Your task to perform on an android device: Play the last video I watched on Youtube Image 0: 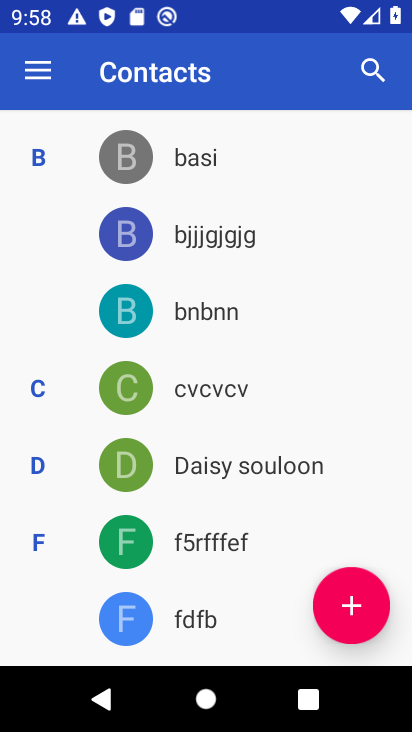
Step 0: press home button
Your task to perform on an android device: Play the last video I watched on Youtube Image 1: 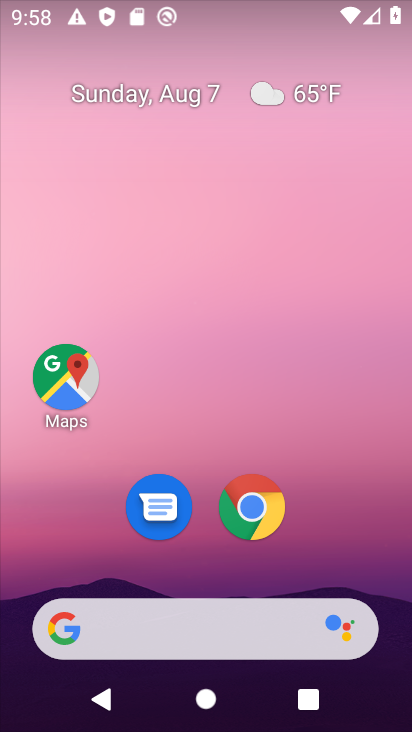
Step 1: click (274, 527)
Your task to perform on an android device: Play the last video I watched on Youtube Image 2: 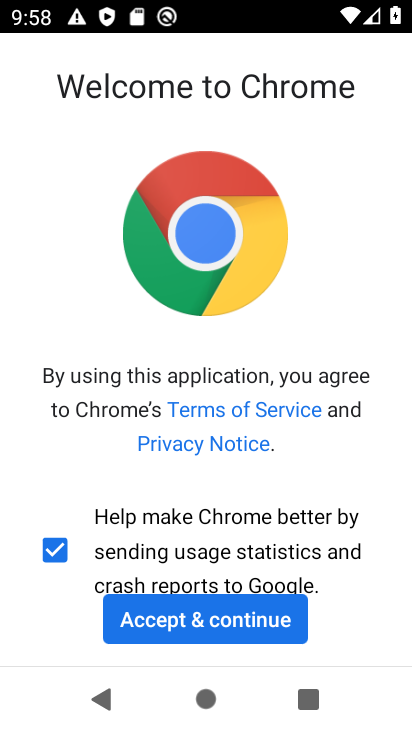
Step 2: click (193, 626)
Your task to perform on an android device: Play the last video I watched on Youtube Image 3: 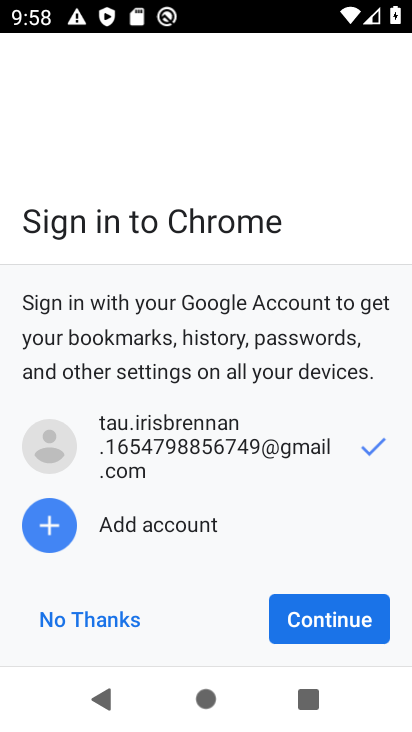
Step 3: click (366, 622)
Your task to perform on an android device: Play the last video I watched on Youtube Image 4: 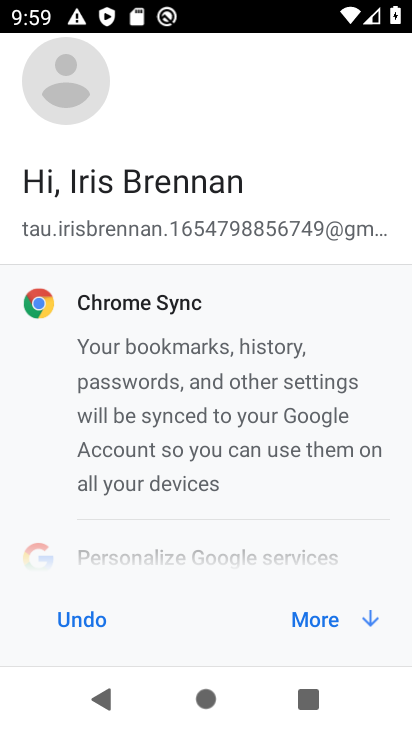
Step 4: click (340, 627)
Your task to perform on an android device: Play the last video I watched on Youtube Image 5: 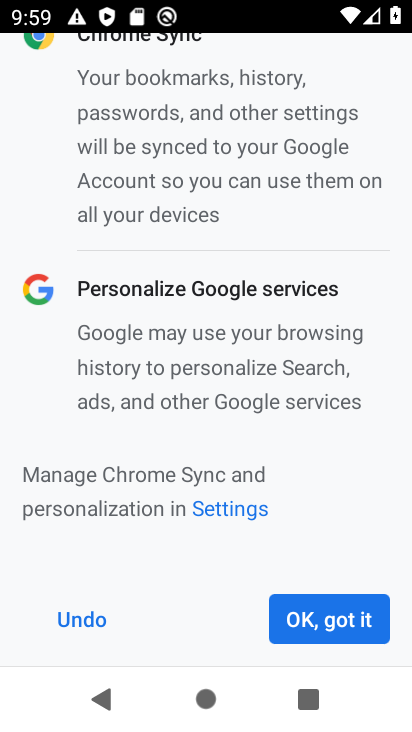
Step 5: click (340, 627)
Your task to perform on an android device: Play the last video I watched on Youtube Image 6: 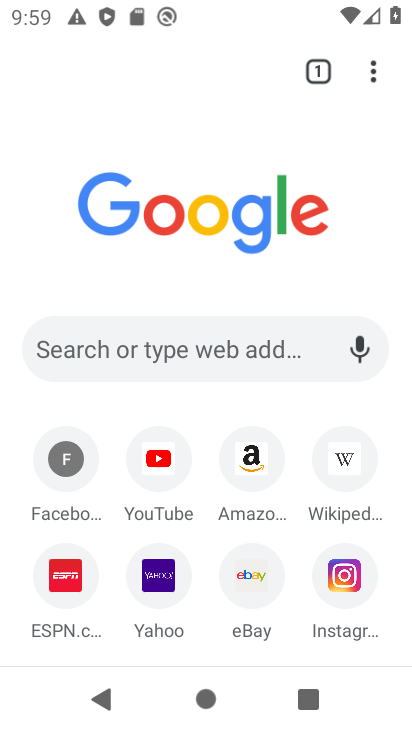
Step 6: press home button
Your task to perform on an android device: Play the last video I watched on Youtube Image 7: 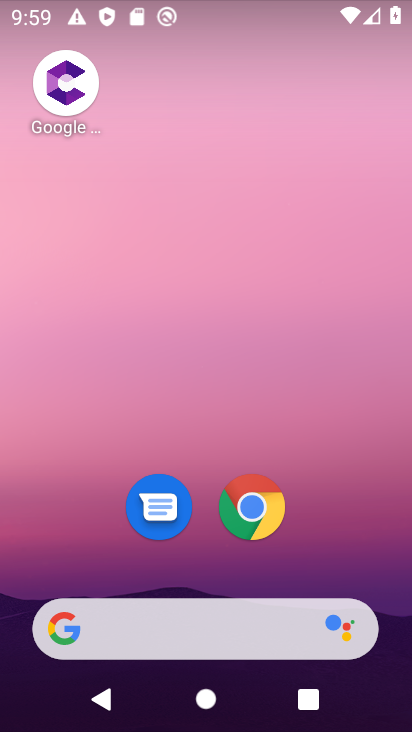
Step 7: drag from (317, 344) to (278, 79)
Your task to perform on an android device: Play the last video I watched on Youtube Image 8: 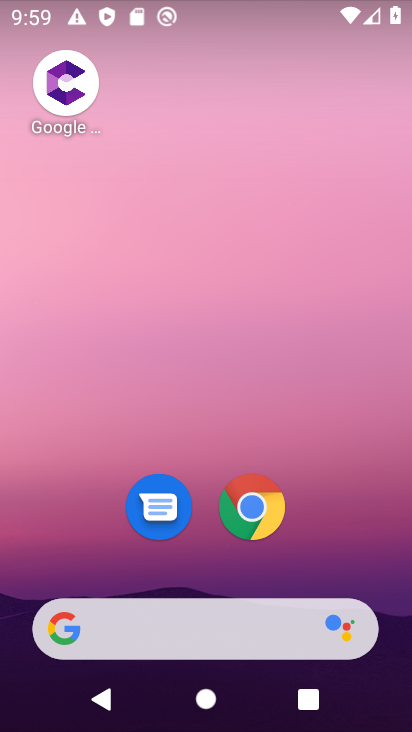
Step 8: drag from (326, 534) to (330, 157)
Your task to perform on an android device: Play the last video I watched on Youtube Image 9: 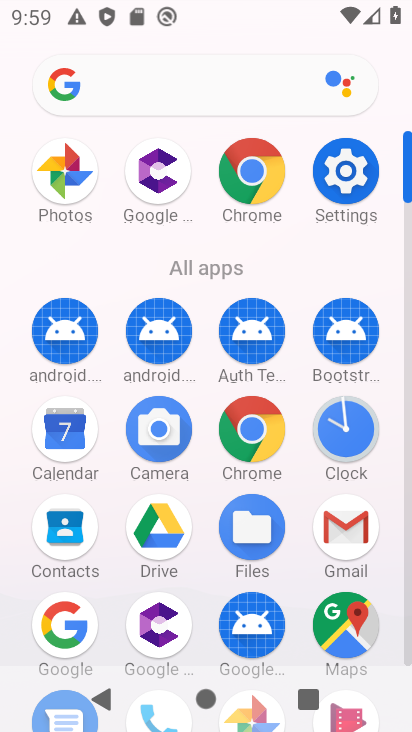
Step 9: drag from (289, 564) to (288, 396)
Your task to perform on an android device: Play the last video I watched on Youtube Image 10: 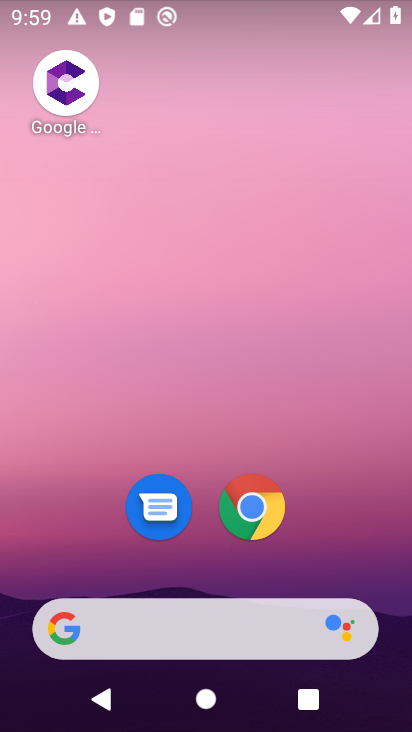
Step 10: drag from (309, 528) to (296, 164)
Your task to perform on an android device: Play the last video I watched on Youtube Image 11: 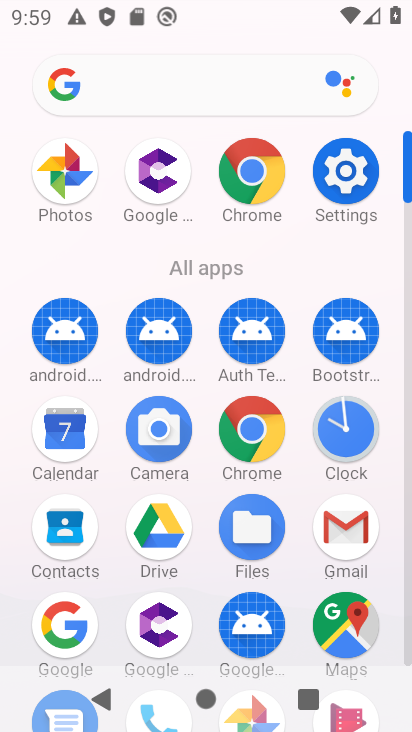
Step 11: drag from (288, 654) to (318, 124)
Your task to perform on an android device: Play the last video I watched on Youtube Image 12: 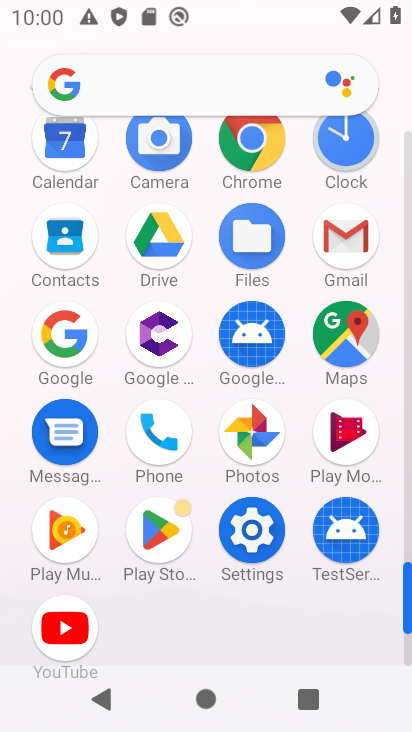
Step 12: click (60, 632)
Your task to perform on an android device: Play the last video I watched on Youtube Image 13: 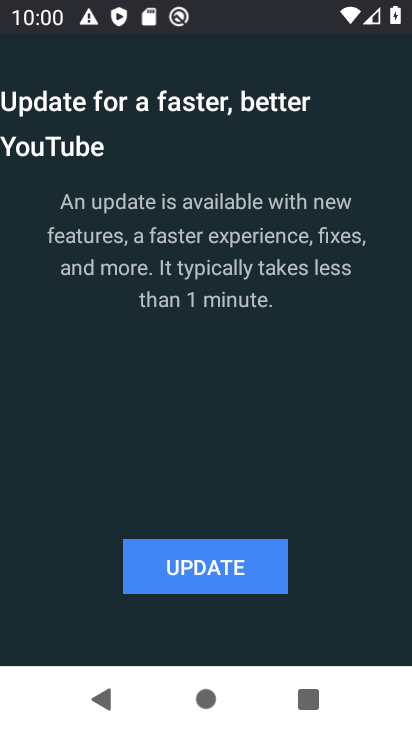
Step 13: task complete